Your task to perform on an android device: toggle pop-ups in chrome Image 0: 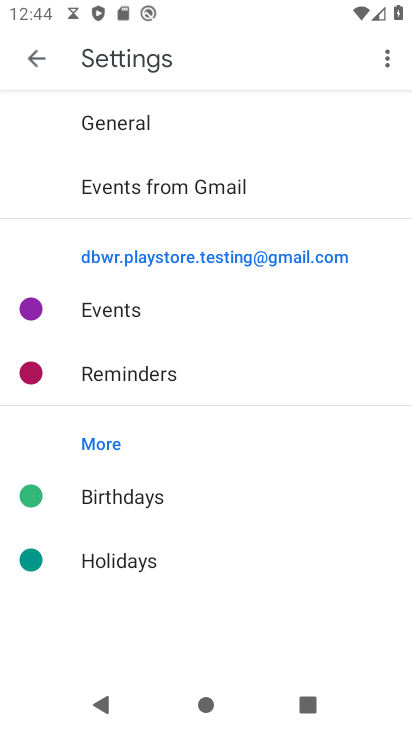
Step 0: press back button
Your task to perform on an android device: toggle pop-ups in chrome Image 1: 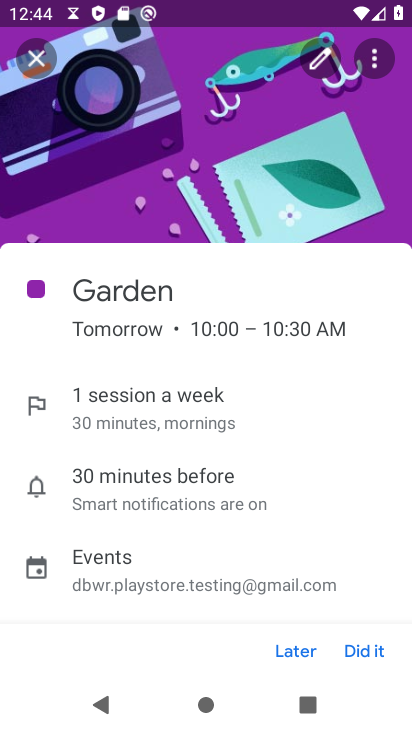
Step 1: press back button
Your task to perform on an android device: toggle pop-ups in chrome Image 2: 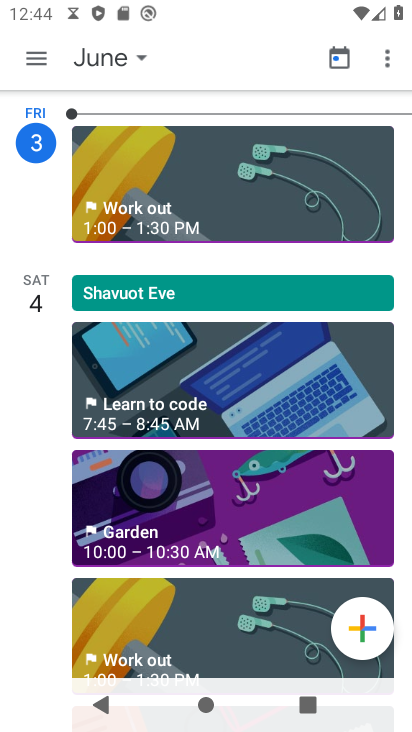
Step 2: press home button
Your task to perform on an android device: toggle pop-ups in chrome Image 3: 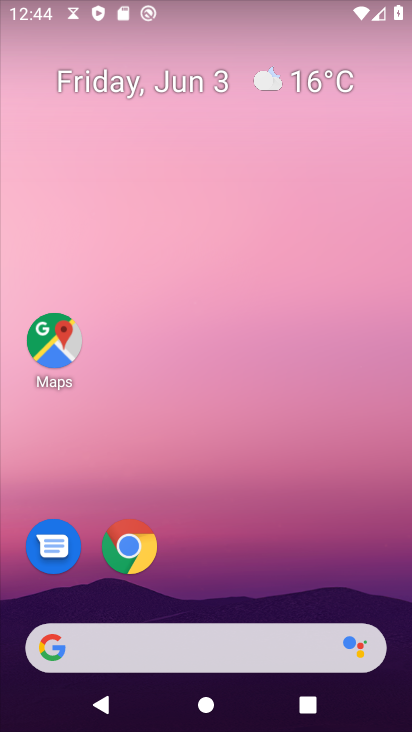
Step 3: click (128, 542)
Your task to perform on an android device: toggle pop-ups in chrome Image 4: 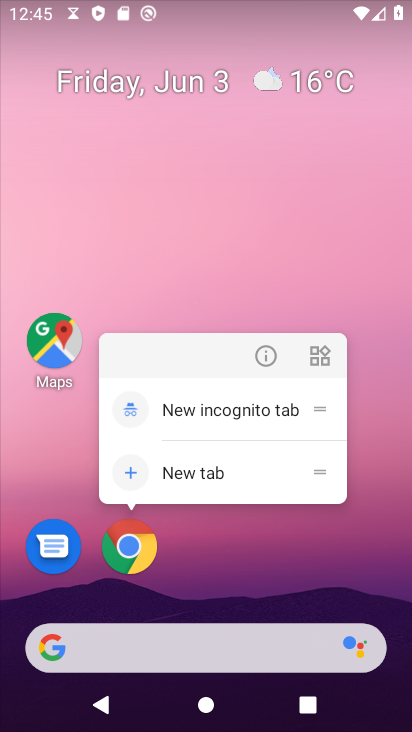
Step 4: click (111, 567)
Your task to perform on an android device: toggle pop-ups in chrome Image 5: 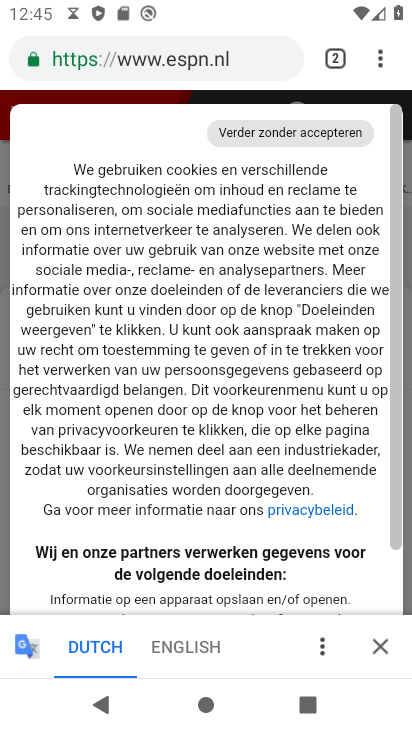
Step 5: drag from (380, 51) to (208, 571)
Your task to perform on an android device: toggle pop-ups in chrome Image 6: 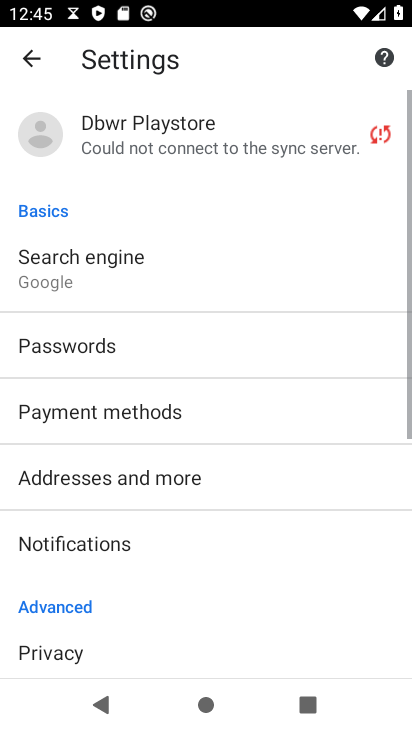
Step 6: drag from (219, 544) to (282, 91)
Your task to perform on an android device: toggle pop-ups in chrome Image 7: 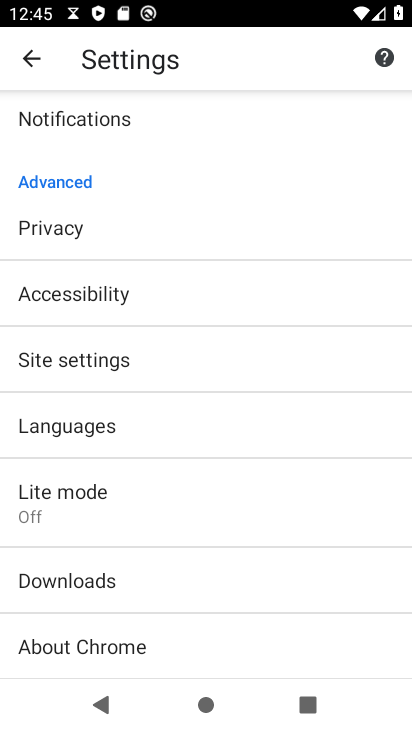
Step 7: click (115, 351)
Your task to perform on an android device: toggle pop-ups in chrome Image 8: 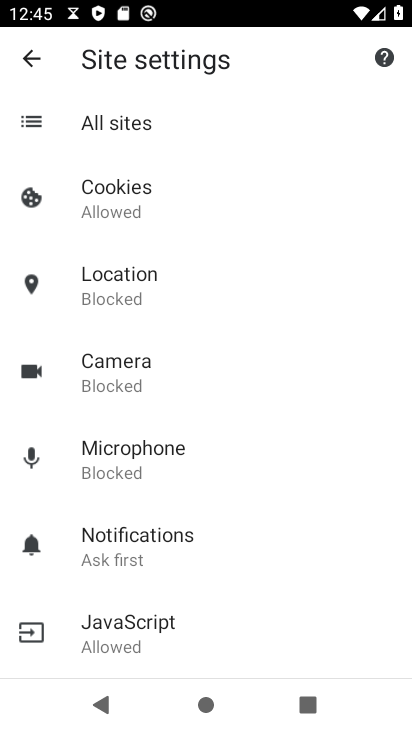
Step 8: drag from (154, 586) to (243, 163)
Your task to perform on an android device: toggle pop-ups in chrome Image 9: 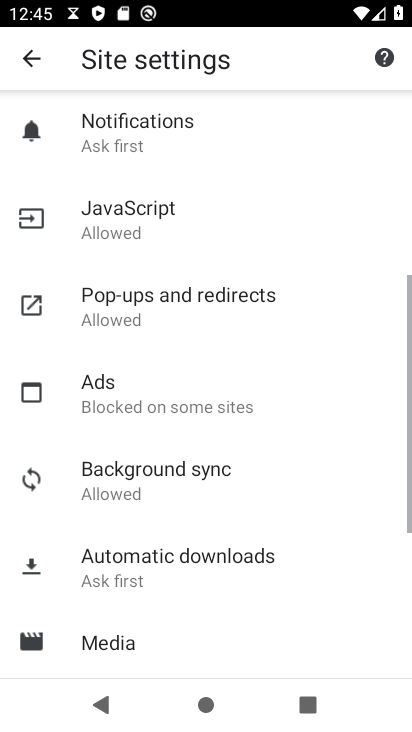
Step 9: click (170, 295)
Your task to perform on an android device: toggle pop-ups in chrome Image 10: 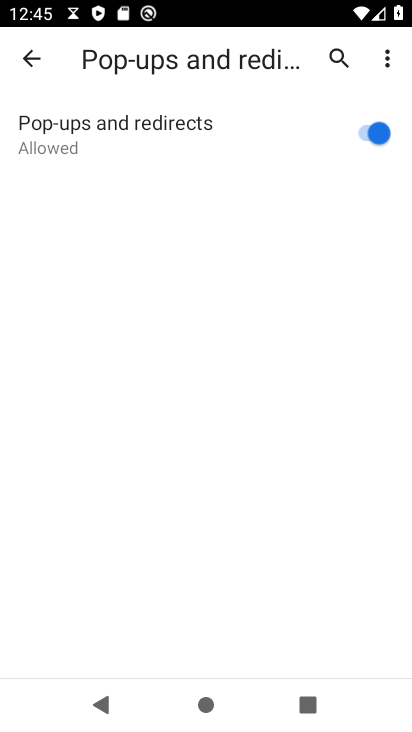
Step 10: click (369, 128)
Your task to perform on an android device: toggle pop-ups in chrome Image 11: 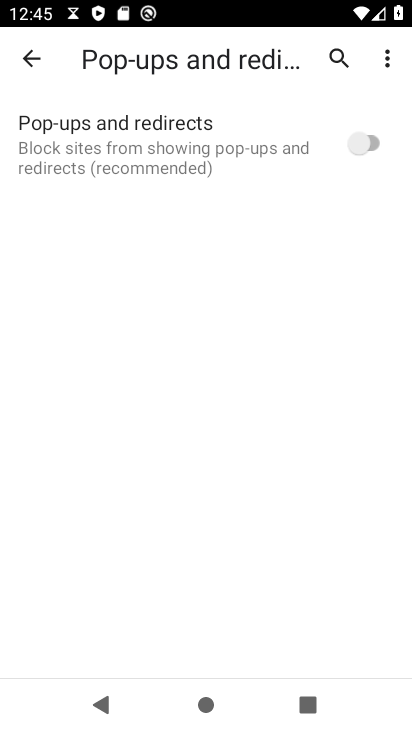
Step 11: task complete